Your task to perform on an android device: read, delete, or share a saved page in the chrome app Image 0: 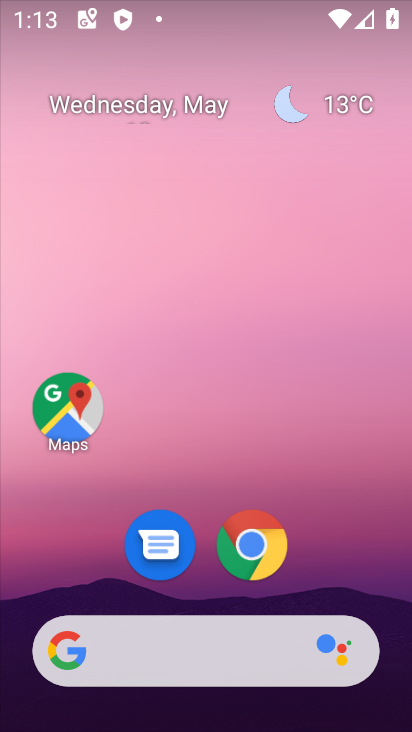
Step 0: click (255, 528)
Your task to perform on an android device: read, delete, or share a saved page in the chrome app Image 1: 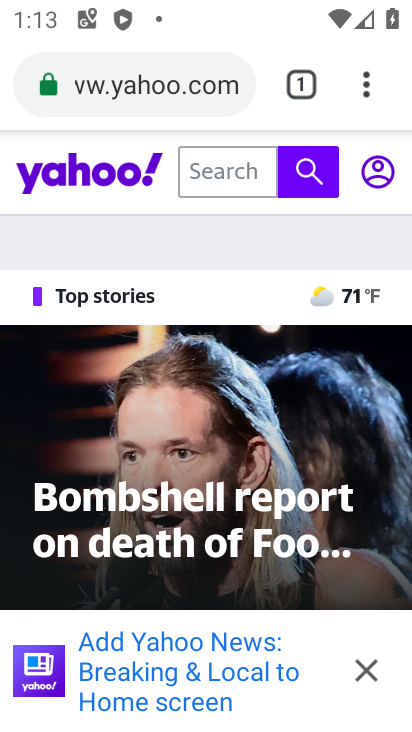
Step 1: click (369, 83)
Your task to perform on an android device: read, delete, or share a saved page in the chrome app Image 2: 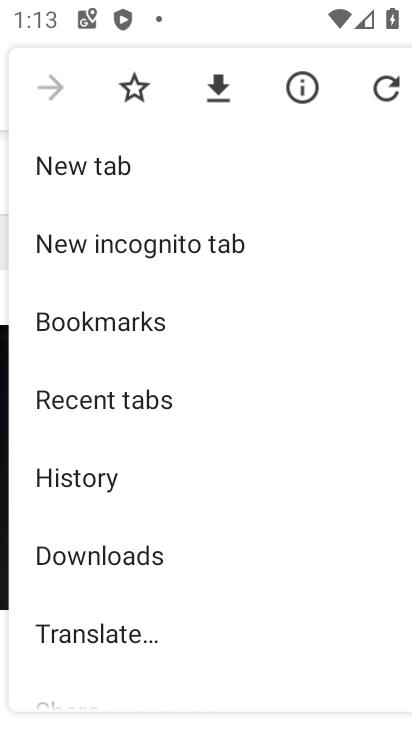
Step 2: click (110, 558)
Your task to perform on an android device: read, delete, or share a saved page in the chrome app Image 3: 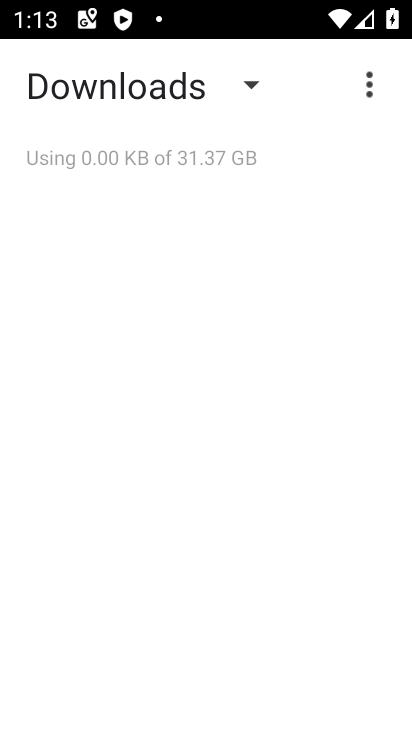
Step 3: task complete